Your task to perform on an android device: Open my contact list Image 0: 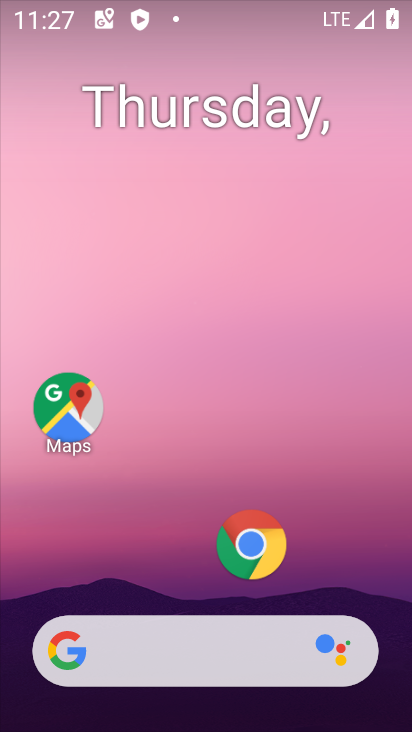
Step 0: drag from (192, 623) to (321, 12)
Your task to perform on an android device: Open my contact list Image 1: 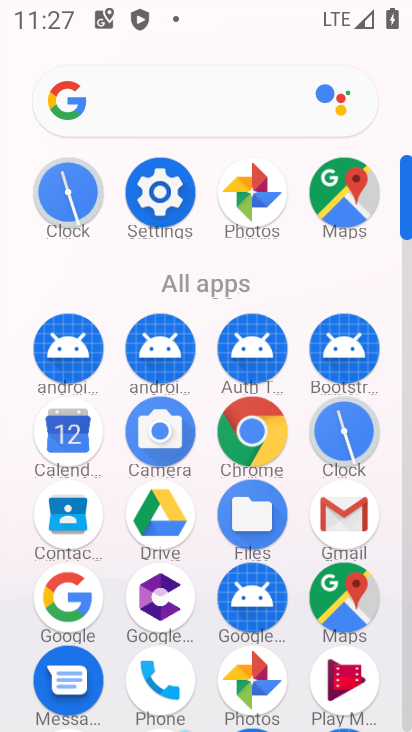
Step 1: click (144, 670)
Your task to perform on an android device: Open my contact list Image 2: 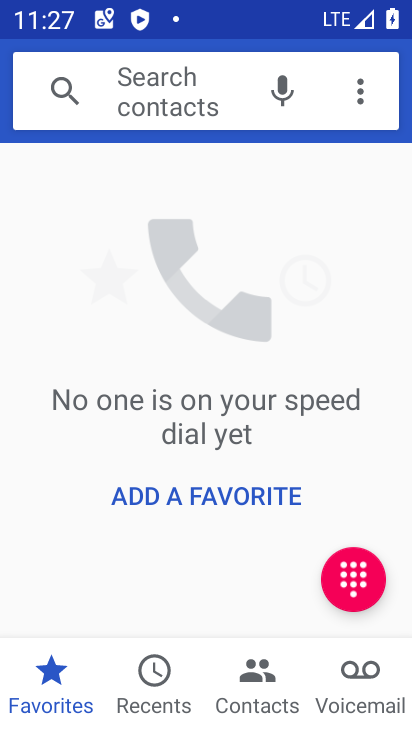
Step 2: click (272, 658)
Your task to perform on an android device: Open my contact list Image 3: 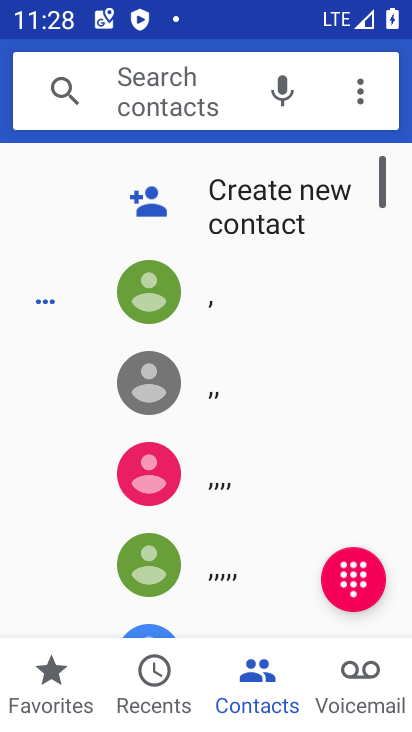
Step 3: task complete